Your task to perform on an android device: toggle show notifications on the lock screen Image 0: 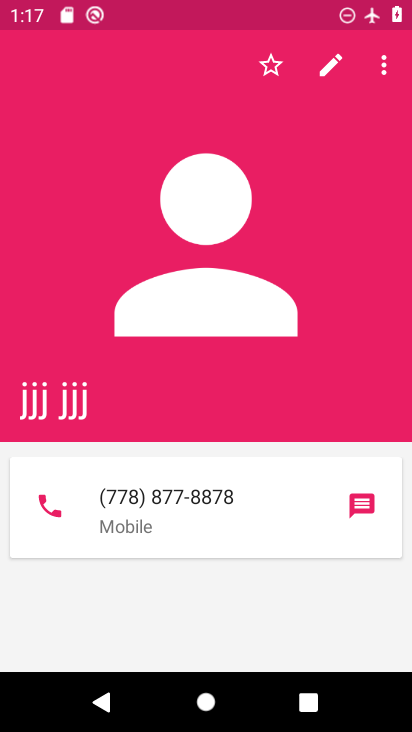
Step 0: press home button
Your task to perform on an android device: toggle show notifications on the lock screen Image 1: 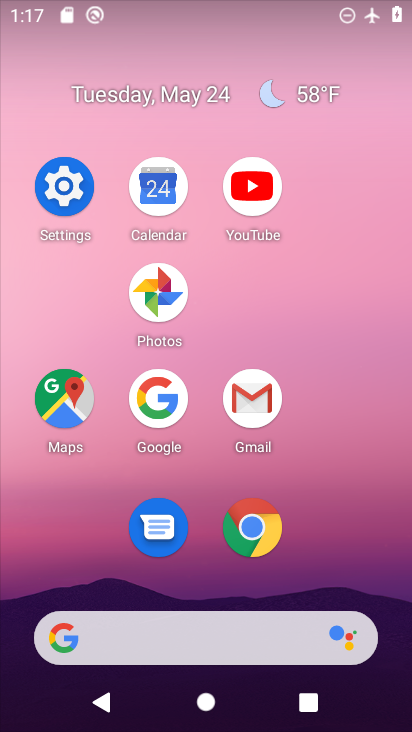
Step 1: click (71, 198)
Your task to perform on an android device: toggle show notifications on the lock screen Image 2: 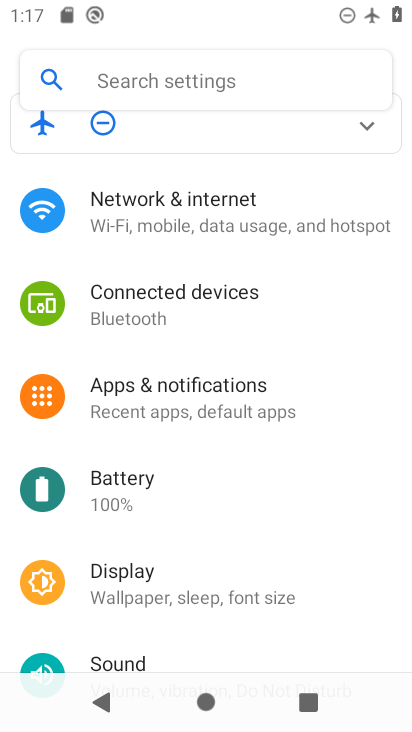
Step 2: click (269, 378)
Your task to perform on an android device: toggle show notifications on the lock screen Image 3: 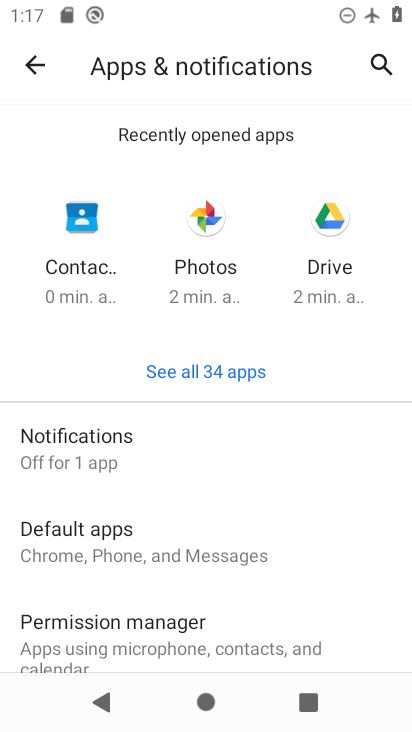
Step 3: click (146, 454)
Your task to perform on an android device: toggle show notifications on the lock screen Image 4: 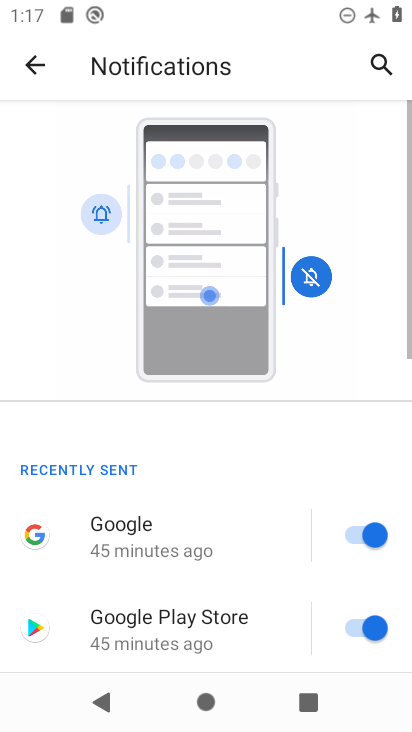
Step 4: drag from (230, 553) to (322, 88)
Your task to perform on an android device: toggle show notifications on the lock screen Image 5: 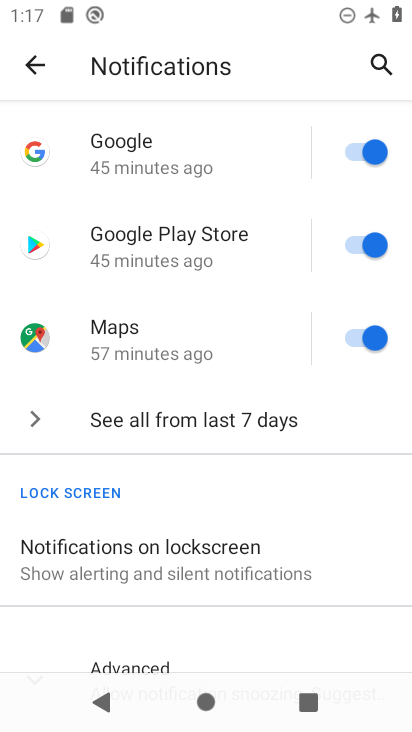
Step 5: drag from (288, 562) to (261, 118)
Your task to perform on an android device: toggle show notifications on the lock screen Image 6: 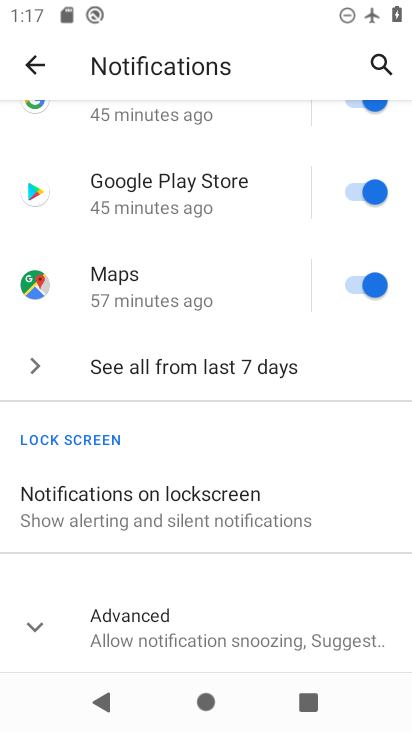
Step 6: click (231, 503)
Your task to perform on an android device: toggle show notifications on the lock screen Image 7: 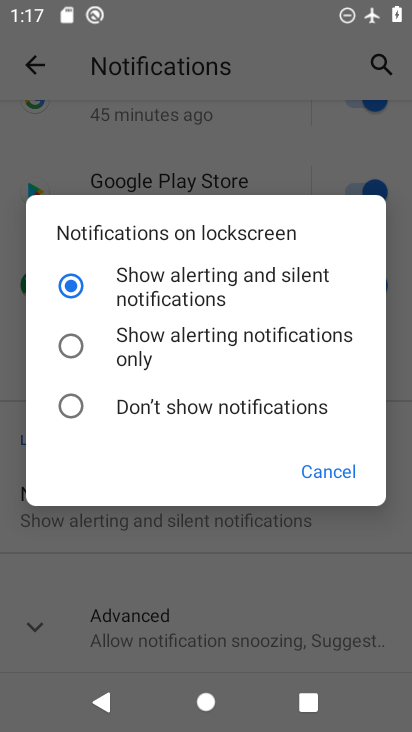
Step 7: click (182, 408)
Your task to perform on an android device: toggle show notifications on the lock screen Image 8: 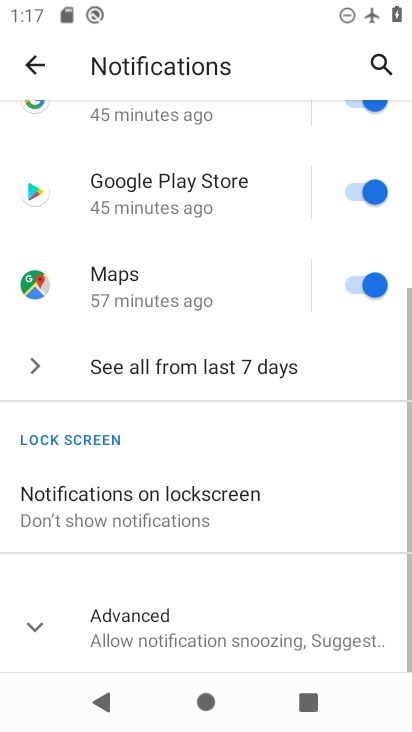
Step 8: task complete